Your task to perform on an android device: make emails show in primary in the gmail app Image 0: 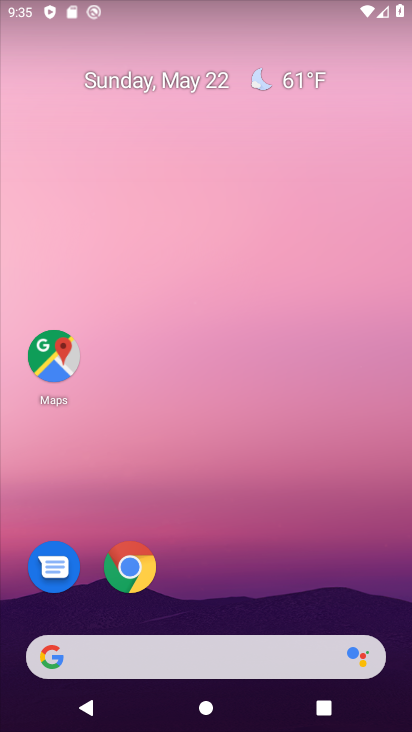
Step 0: drag from (225, 622) to (138, 27)
Your task to perform on an android device: make emails show in primary in the gmail app Image 1: 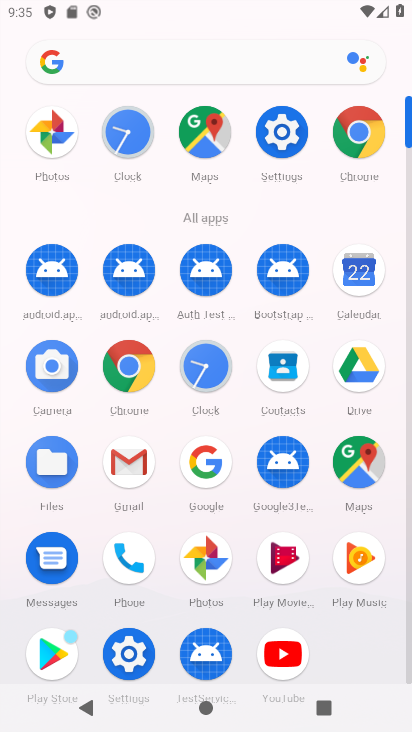
Step 1: click (134, 460)
Your task to perform on an android device: make emails show in primary in the gmail app Image 2: 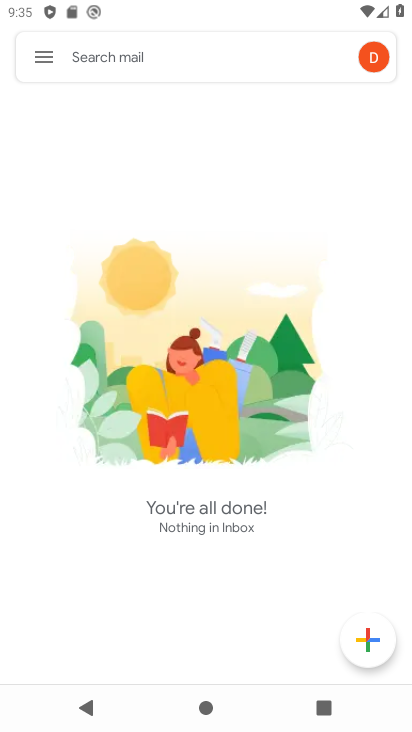
Step 2: click (50, 59)
Your task to perform on an android device: make emails show in primary in the gmail app Image 3: 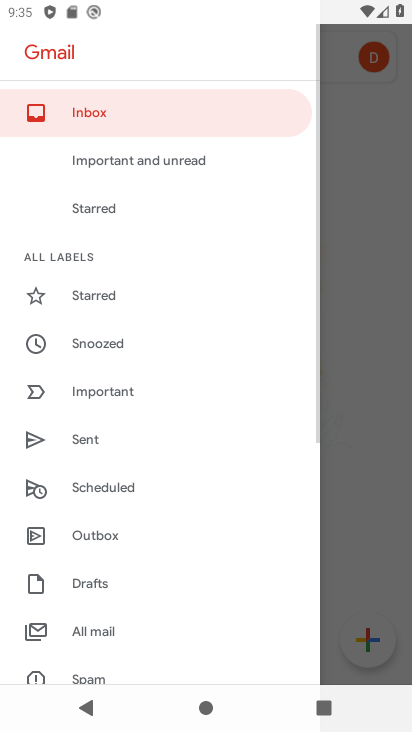
Step 3: drag from (164, 566) to (115, 191)
Your task to perform on an android device: make emails show in primary in the gmail app Image 4: 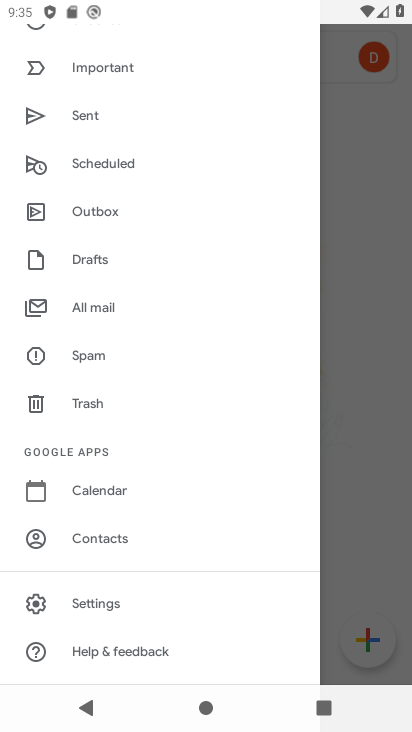
Step 4: click (75, 609)
Your task to perform on an android device: make emails show in primary in the gmail app Image 5: 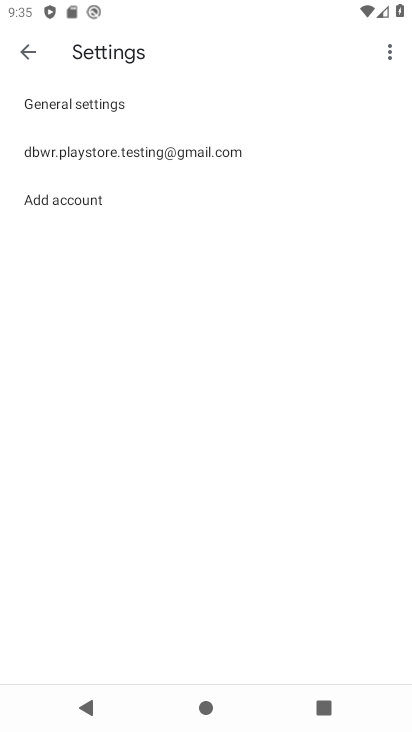
Step 5: click (88, 154)
Your task to perform on an android device: make emails show in primary in the gmail app Image 6: 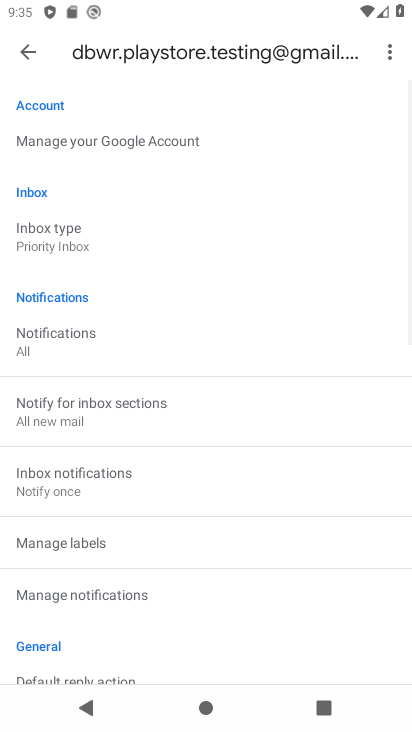
Step 6: click (84, 237)
Your task to perform on an android device: make emails show in primary in the gmail app Image 7: 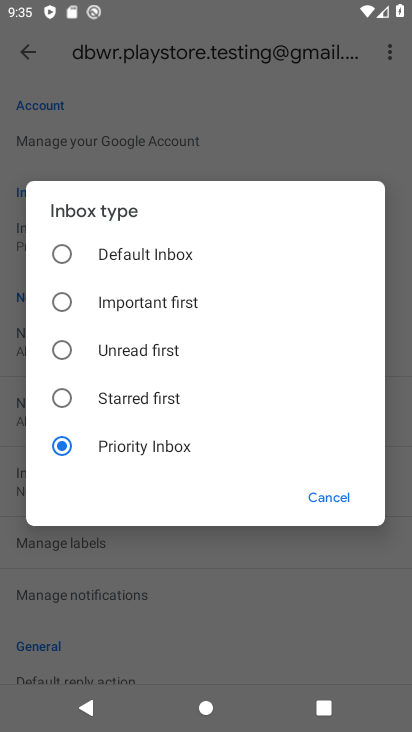
Step 7: click (111, 238)
Your task to perform on an android device: make emails show in primary in the gmail app Image 8: 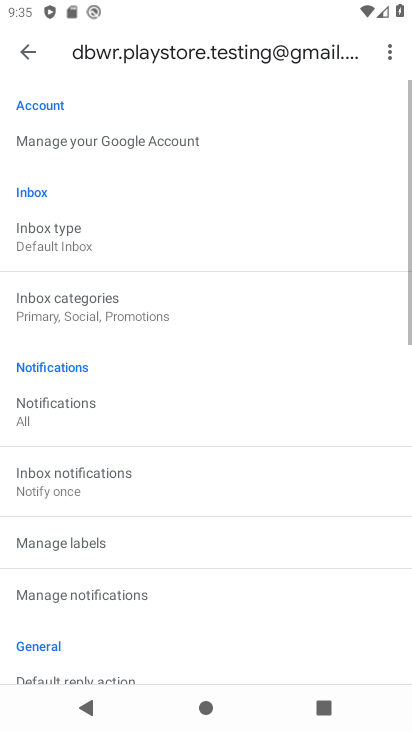
Step 8: click (30, 41)
Your task to perform on an android device: make emails show in primary in the gmail app Image 9: 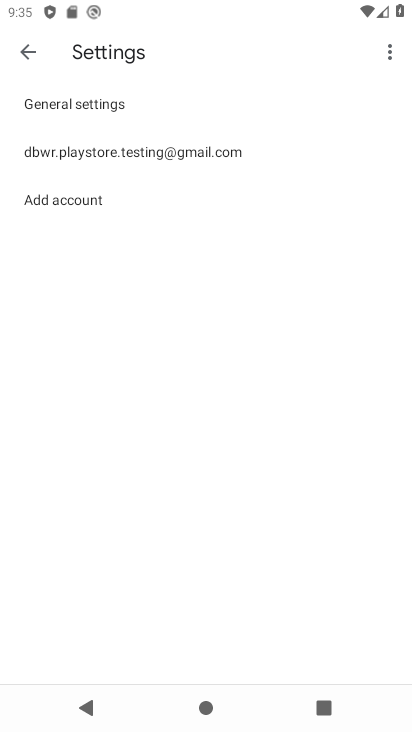
Step 9: click (30, 42)
Your task to perform on an android device: make emails show in primary in the gmail app Image 10: 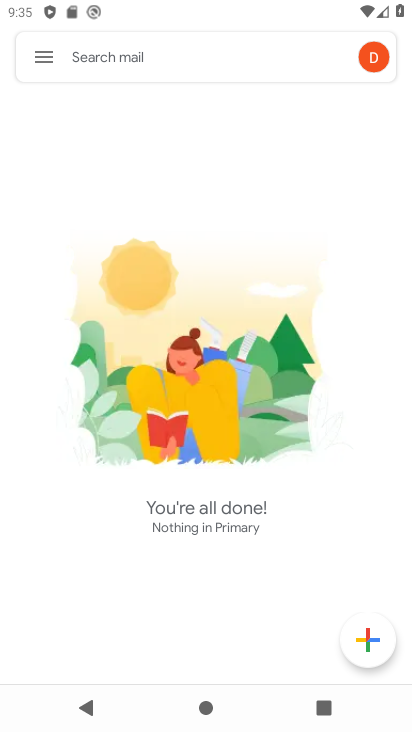
Step 10: task complete